Your task to perform on an android device: turn smart compose on in the gmail app Image 0: 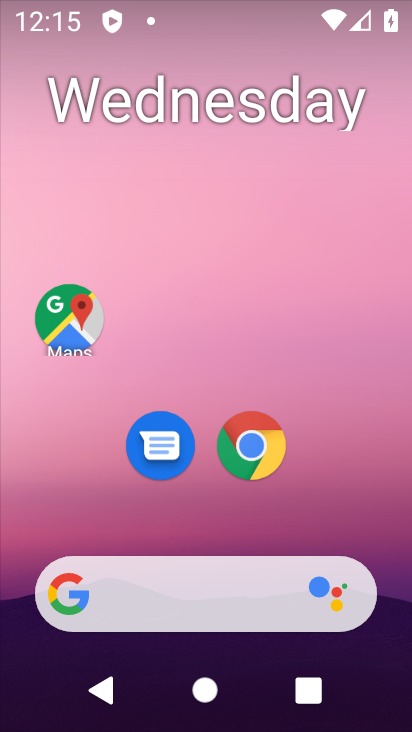
Step 0: drag from (223, 520) to (297, 240)
Your task to perform on an android device: turn smart compose on in the gmail app Image 1: 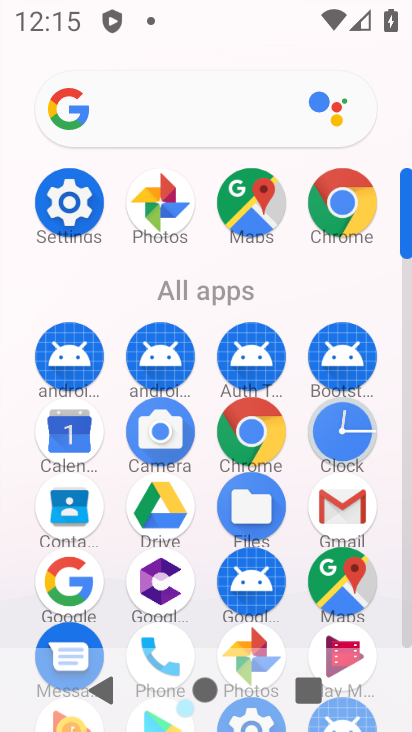
Step 1: click (350, 523)
Your task to perform on an android device: turn smart compose on in the gmail app Image 2: 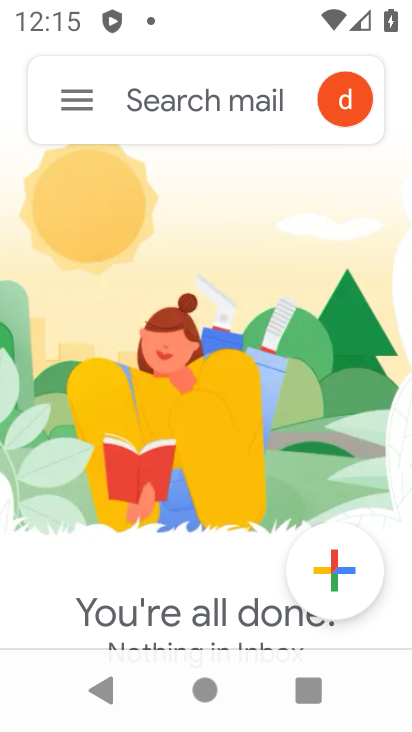
Step 2: click (81, 96)
Your task to perform on an android device: turn smart compose on in the gmail app Image 3: 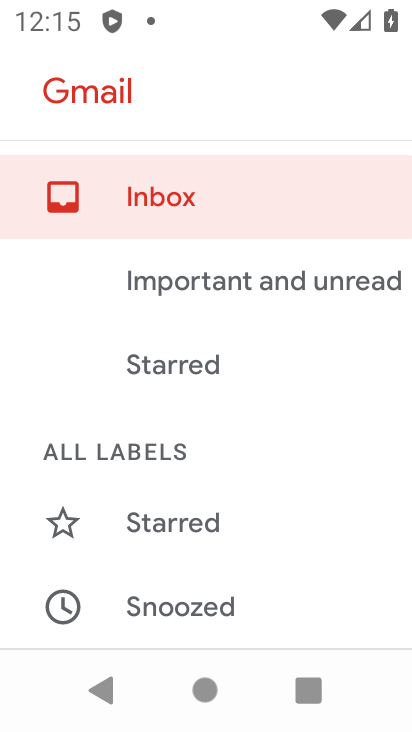
Step 3: drag from (203, 529) to (400, 89)
Your task to perform on an android device: turn smart compose on in the gmail app Image 4: 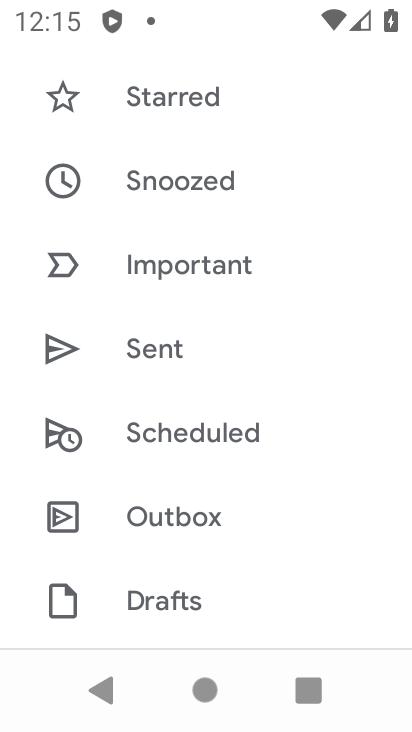
Step 4: drag from (193, 521) to (271, 249)
Your task to perform on an android device: turn smart compose on in the gmail app Image 5: 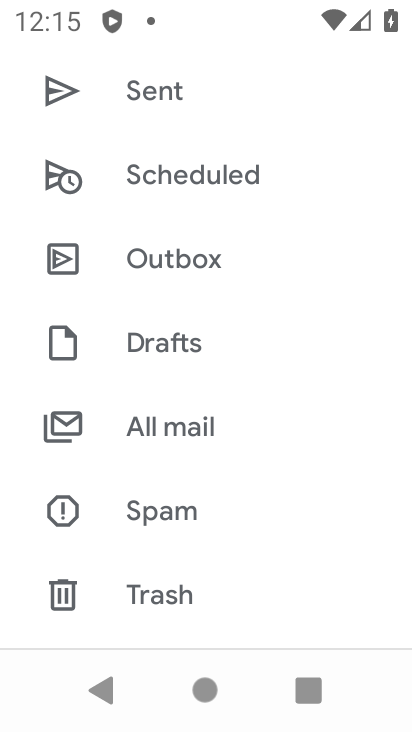
Step 5: drag from (188, 574) to (321, 273)
Your task to perform on an android device: turn smart compose on in the gmail app Image 6: 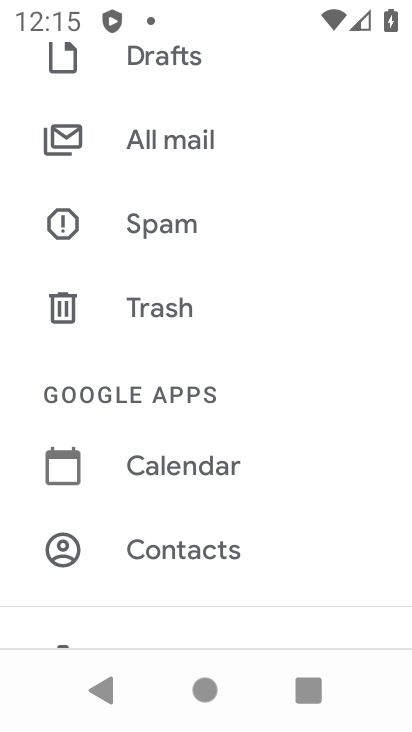
Step 6: drag from (214, 582) to (283, 335)
Your task to perform on an android device: turn smart compose on in the gmail app Image 7: 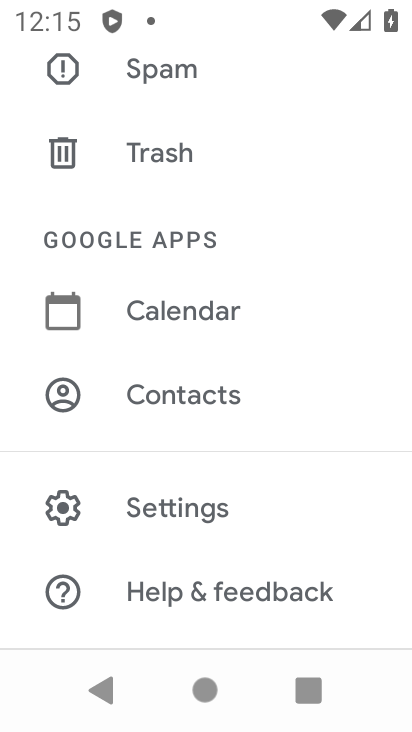
Step 7: click (187, 516)
Your task to perform on an android device: turn smart compose on in the gmail app Image 8: 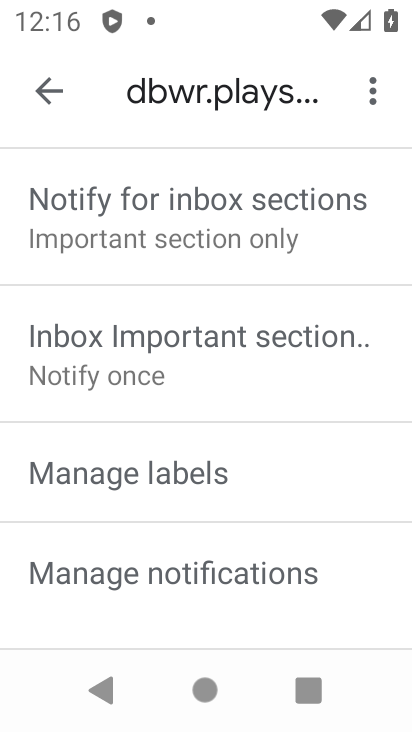
Step 8: press home button
Your task to perform on an android device: turn smart compose on in the gmail app Image 9: 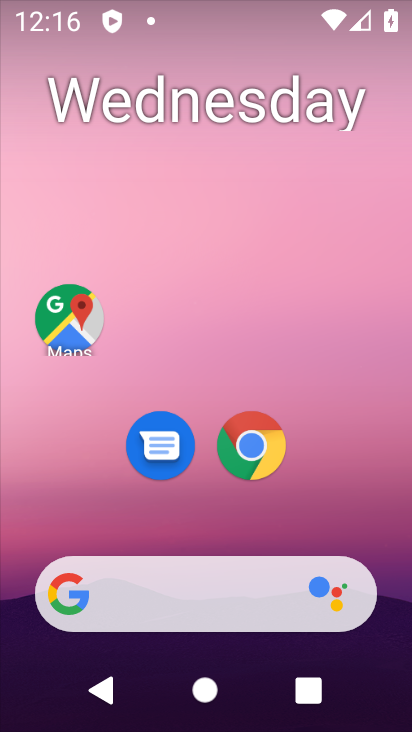
Step 9: drag from (291, 546) to (400, 104)
Your task to perform on an android device: turn smart compose on in the gmail app Image 10: 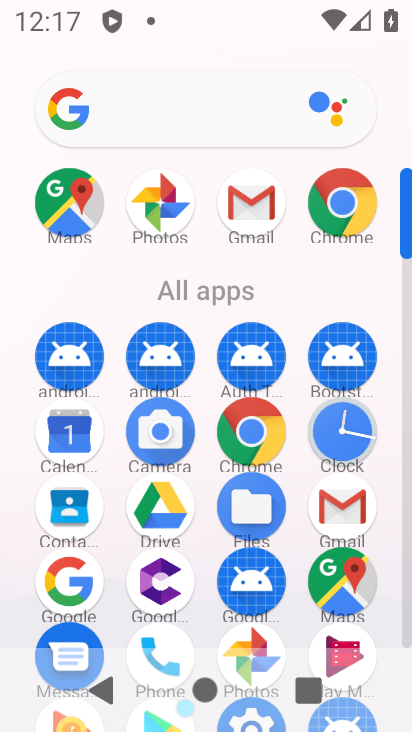
Step 10: click (350, 517)
Your task to perform on an android device: turn smart compose on in the gmail app Image 11: 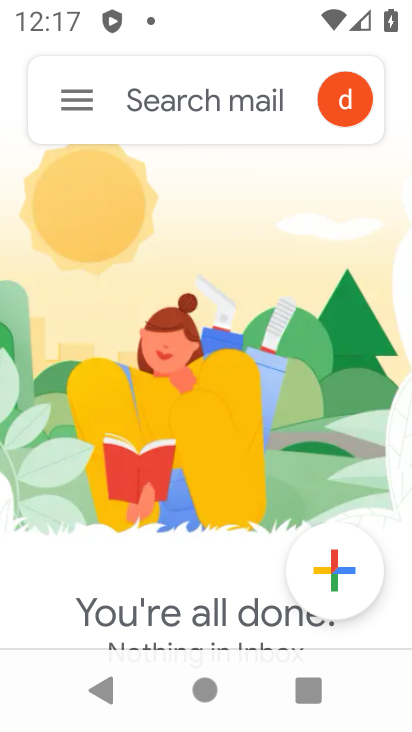
Step 11: click (79, 101)
Your task to perform on an android device: turn smart compose on in the gmail app Image 12: 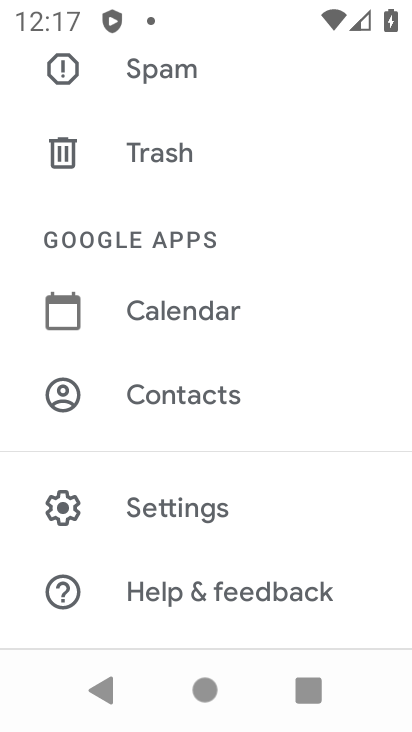
Step 12: click (108, 505)
Your task to perform on an android device: turn smart compose on in the gmail app Image 13: 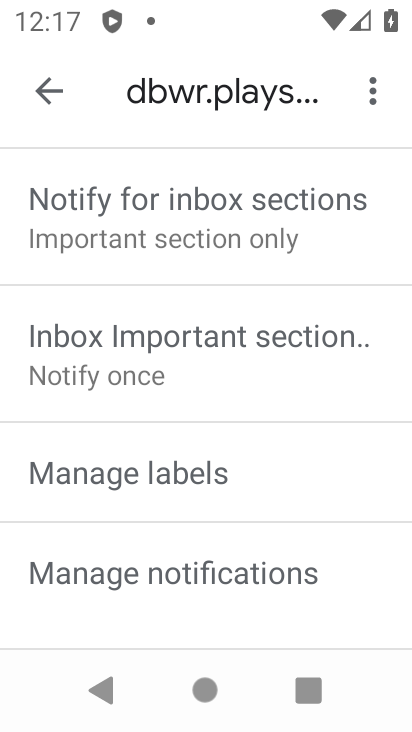
Step 13: task complete